Your task to perform on an android device: Open Chrome and go to settings Image 0: 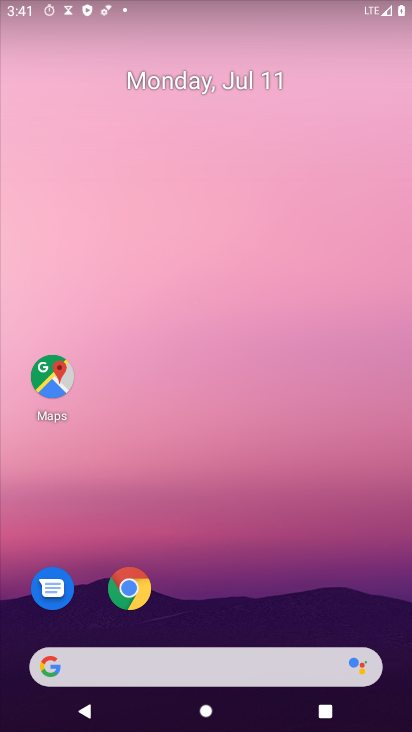
Step 0: click (122, 588)
Your task to perform on an android device: Open Chrome and go to settings Image 1: 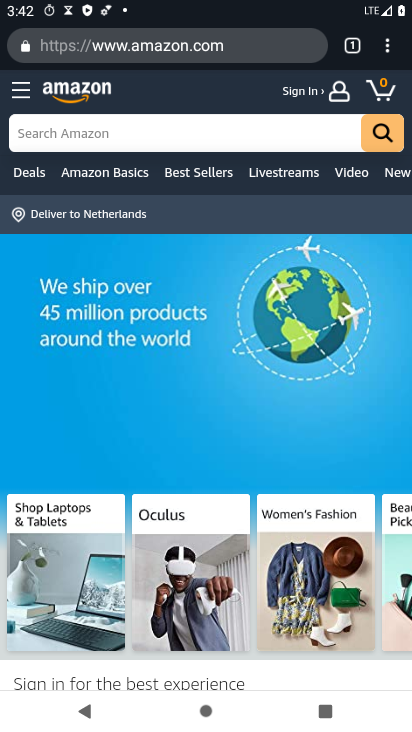
Step 1: click (387, 54)
Your task to perform on an android device: Open Chrome and go to settings Image 2: 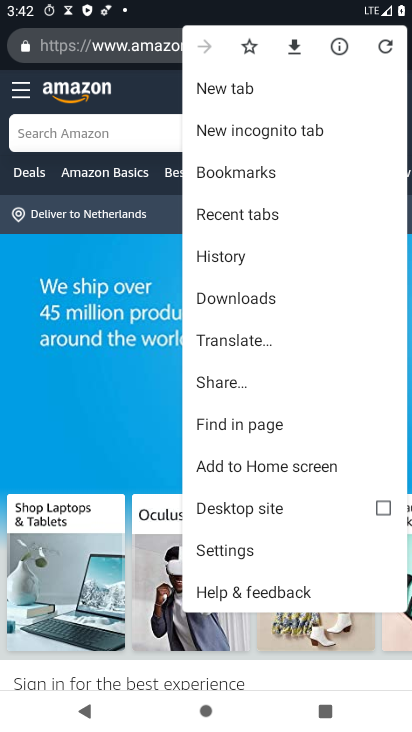
Step 2: click (249, 554)
Your task to perform on an android device: Open Chrome and go to settings Image 3: 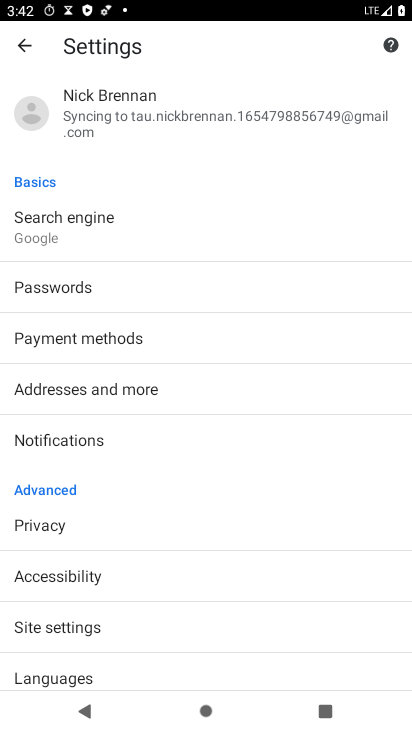
Step 3: task complete